Your task to perform on an android device: Go to Amazon Image 0: 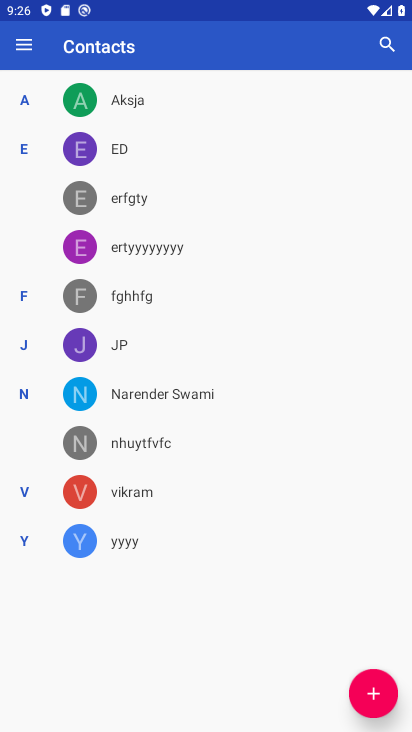
Step 0: press home button
Your task to perform on an android device: Go to Amazon Image 1: 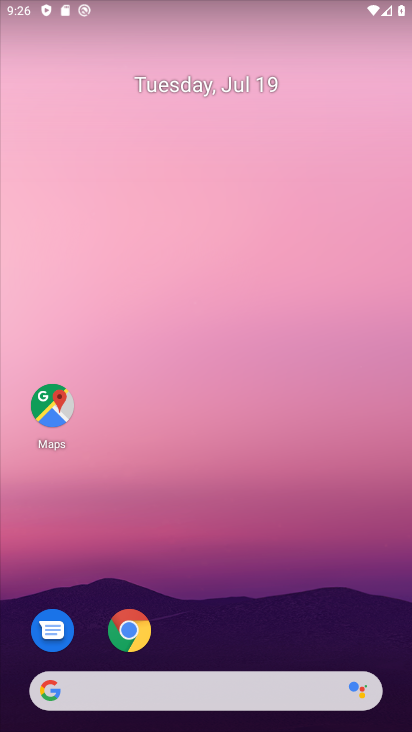
Step 1: click (118, 634)
Your task to perform on an android device: Go to Amazon Image 2: 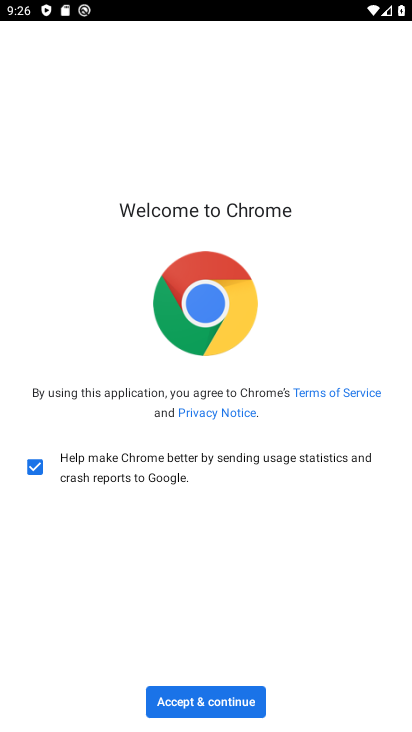
Step 2: click (181, 700)
Your task to perform on an android device: Go to Amazon Image 3: 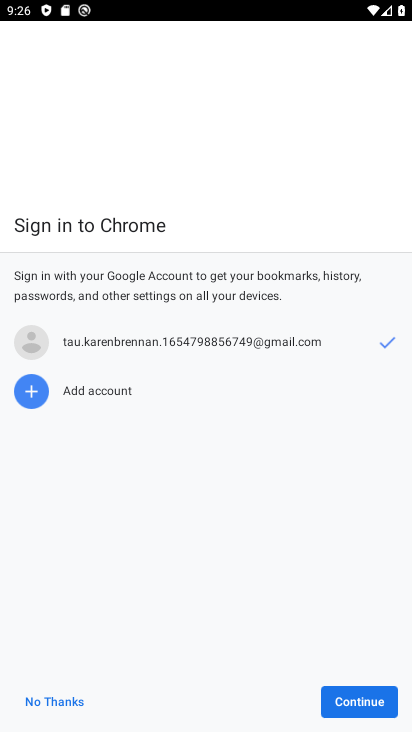
Step 3: click (351, 706)
Your task to perform on an android device: Go to Amazon Image 4: 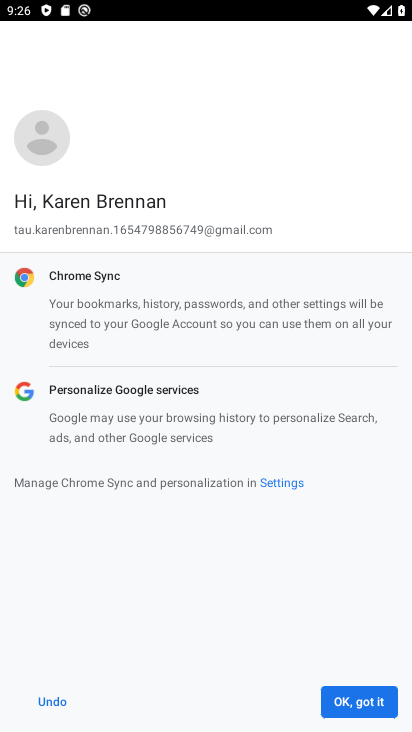
Step 4: click (351, 706)
Your task to perform on an android device: Go to Amazon Image 5: 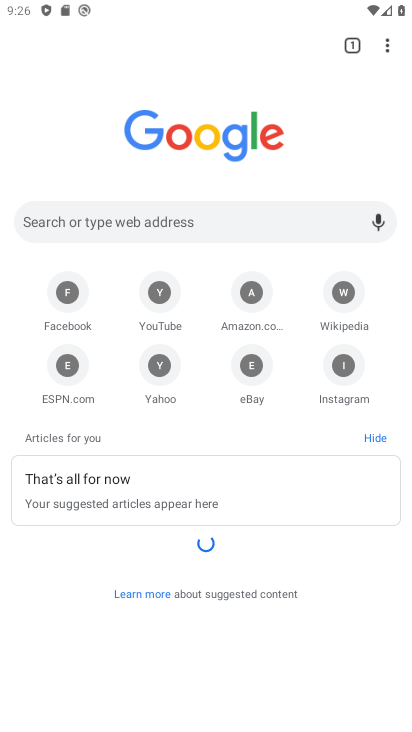
Step 5: click (261, 302)
Your task to perform on an android device: Go to Amazon Image 6: 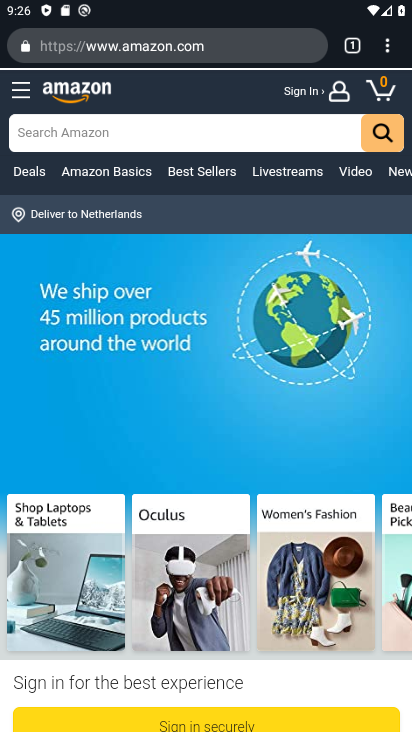
Step 6: task complete